Your task to perform on an android device: toggle notification dots Image 0: 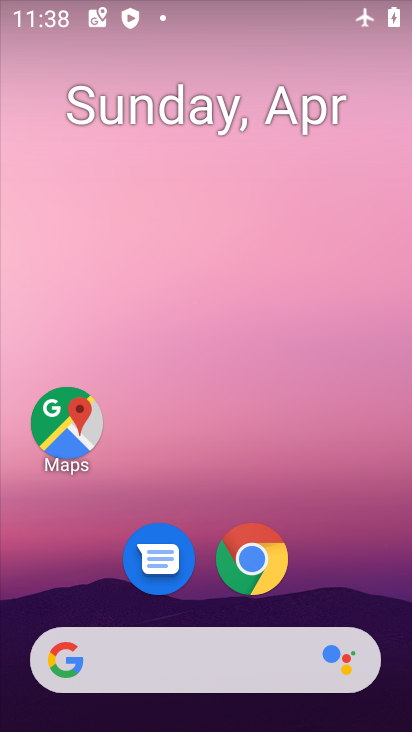
Step 0: drag from (306, 572) to (316, 1)
Your task to perform on an android device: toggle notification dots Image 1: 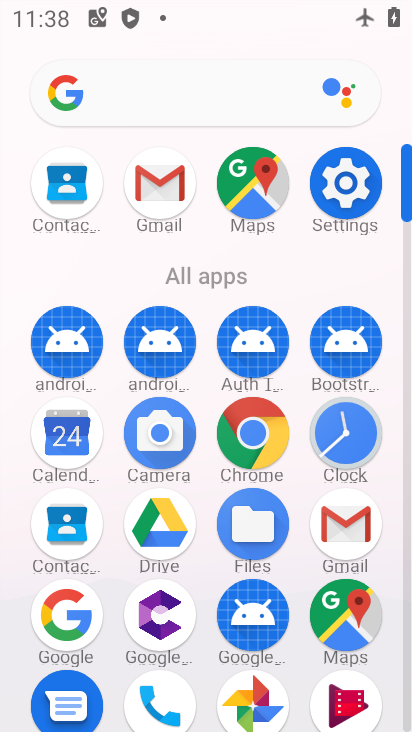
Step 1: click (343, 194)
Your task to perform on an android device: toggle notification dots Image 2: 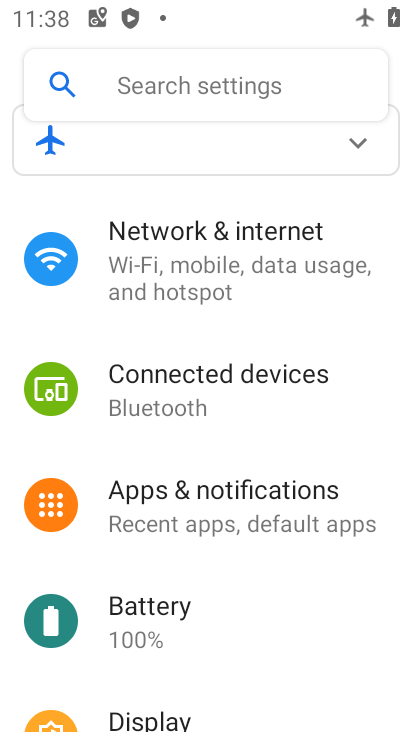
Step 2: click (208, 516)
Your task to perform on an android device: toggle notification dots Image 3: 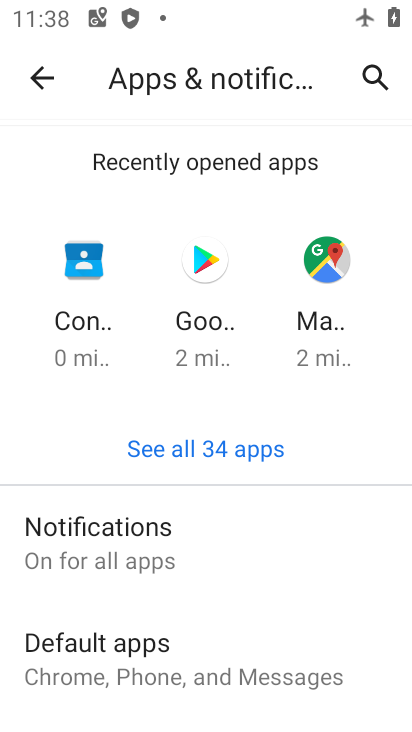
Step 3: click (152, 553)
Your task to perform on an android device: toggle notification dots Image 4: 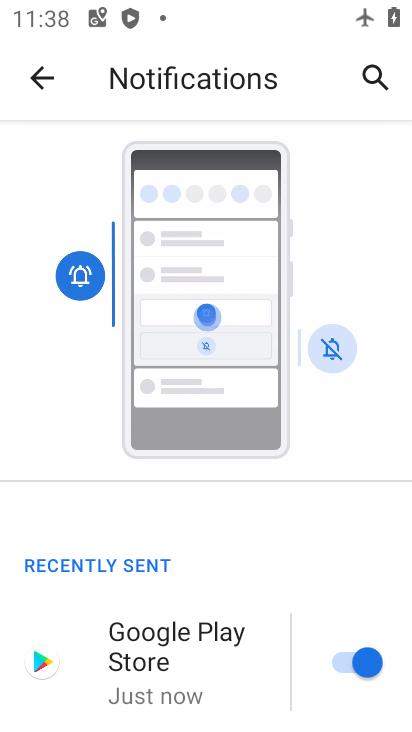
Step 4: drag from (139, 596) to (186, 316)
Your task to perform on an android device: toggle notification dots Image 5: 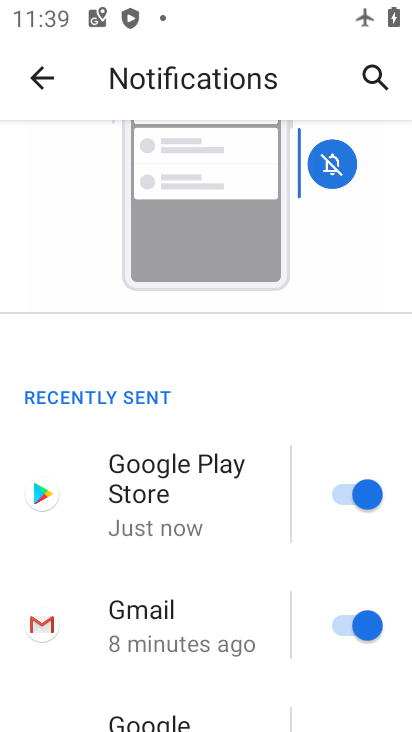
Step 5: click (215, 221)
Your task to perform on an android device: toggle notification dots Image 6: 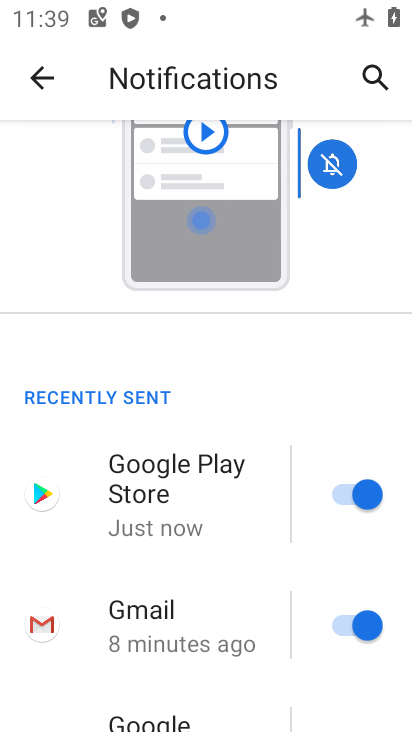
Step 6: drag from (192, 535) to (202, 253)
Your task to perform on an android device: toggle notification dots Image 7: 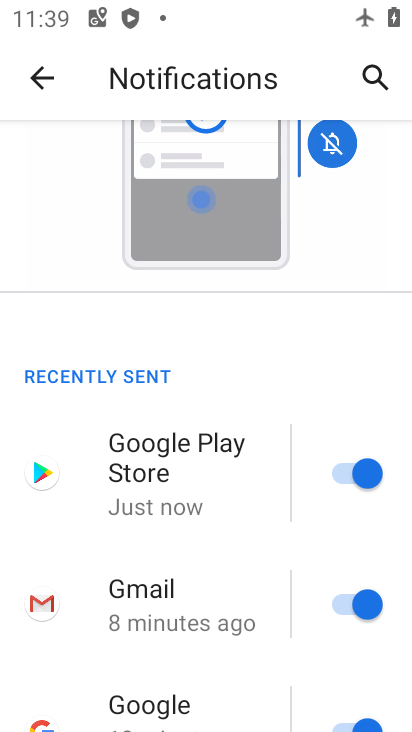
Step 7: drag from (192, 634) to (222, 168)
Your task to perform on an android device: toggle notification dots Image 8: 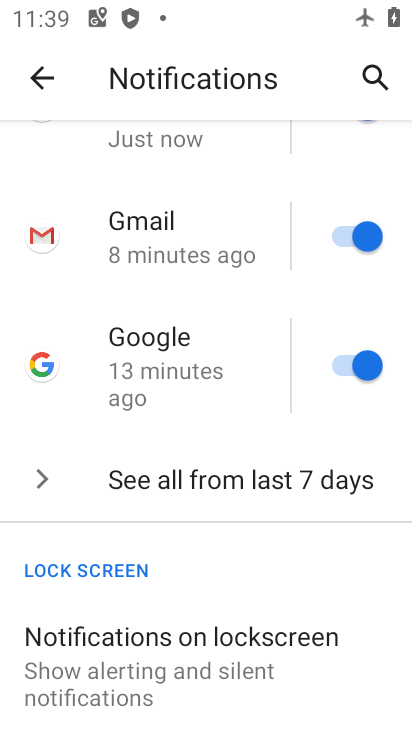
Step 8: drag from (200, 645) to (203, 158)
Your task to perform on an android device: toggle notification dots Image 9: 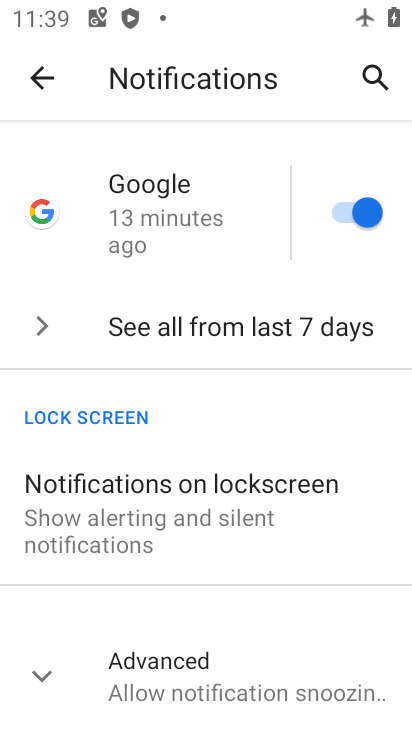
Step 9: click (184, 674)
Your task to perform on an android device: toggle notification dots Image 10: 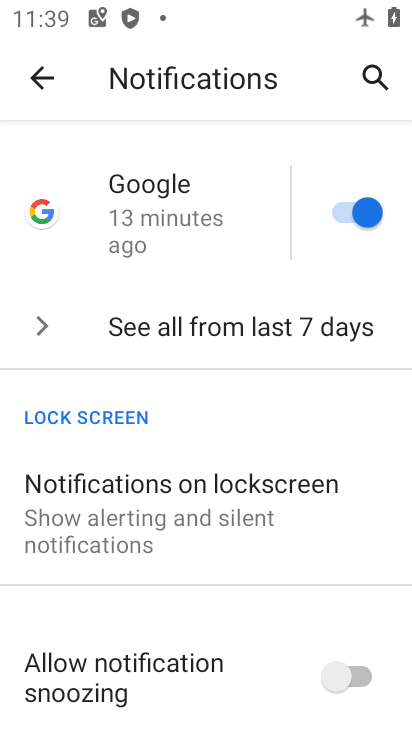
Step 10: drag from (171, 679) to (201, 138)
Your task to perform on an android device: toggle notification dots Image 11: 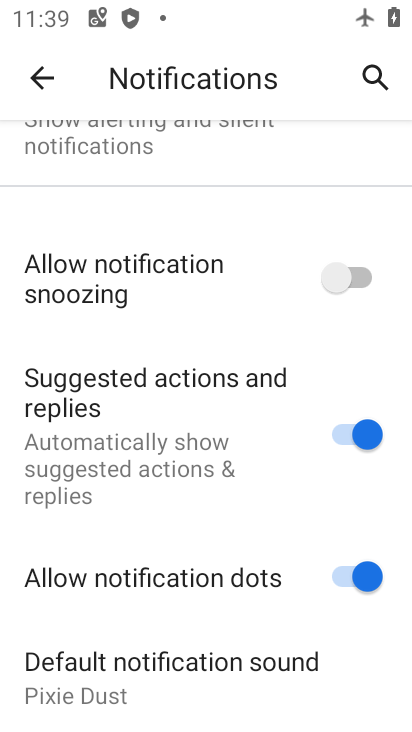
Step 11: click (370, 588)
Your task to perform on an android device: toggle notification dots Image 12: 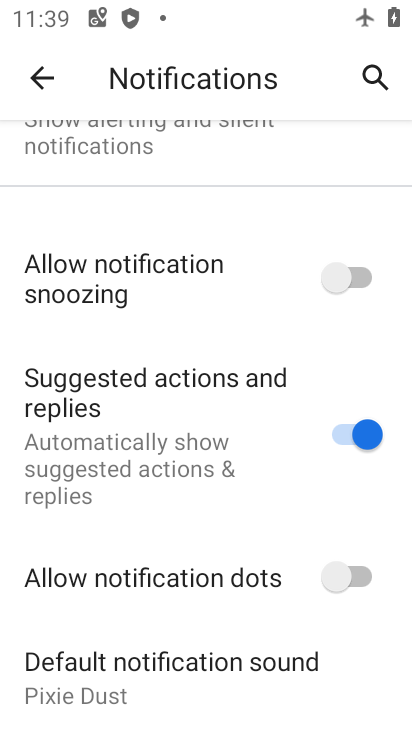
Step 12: task complete